Your task to perform on an android device: open app "Microsoft Authenticator" (install if not already installed) and go to login screen Image 0: 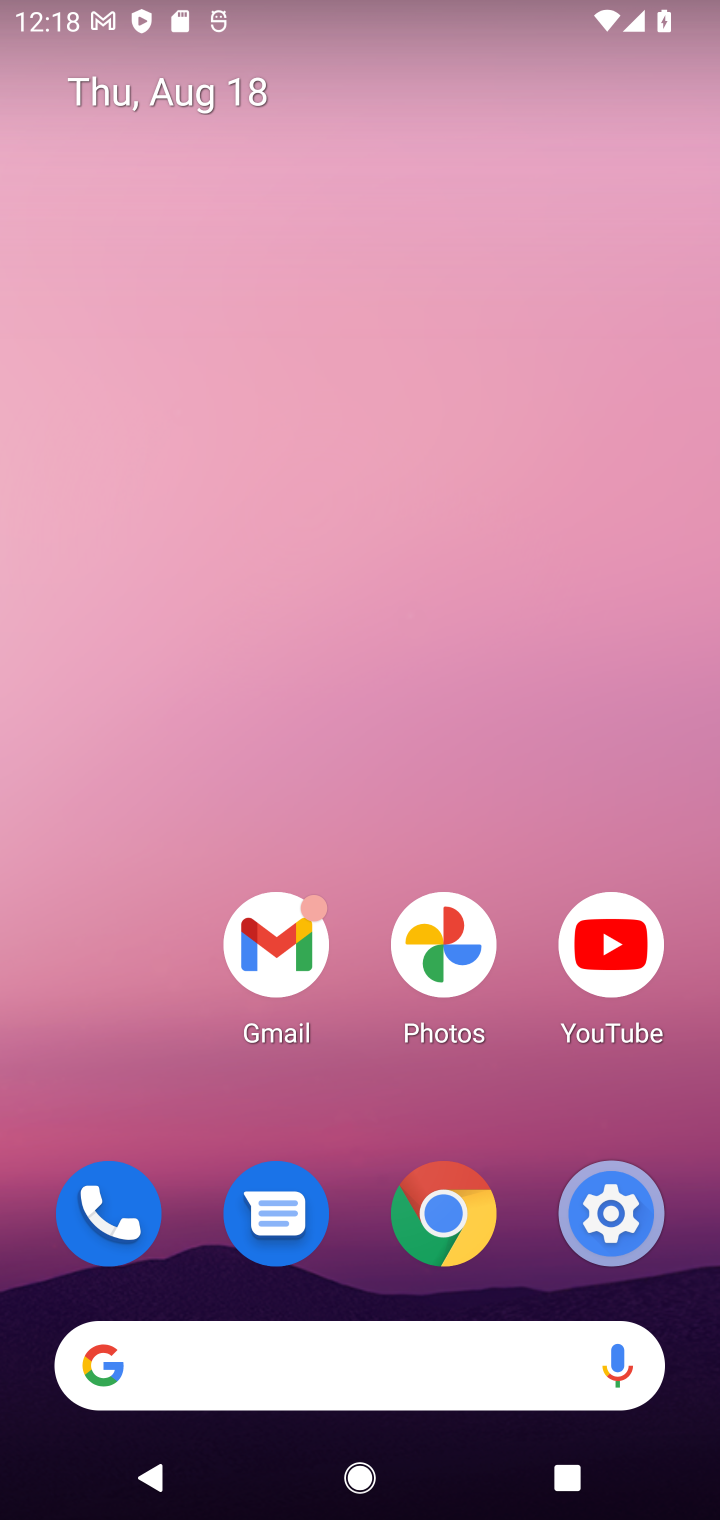
Step 0: drag from (268, 1378) to (286, 38)
Your task to perform on an android device: open app "Microsoft Authenticator" (install if not already installed) and go to login screen Image 1: 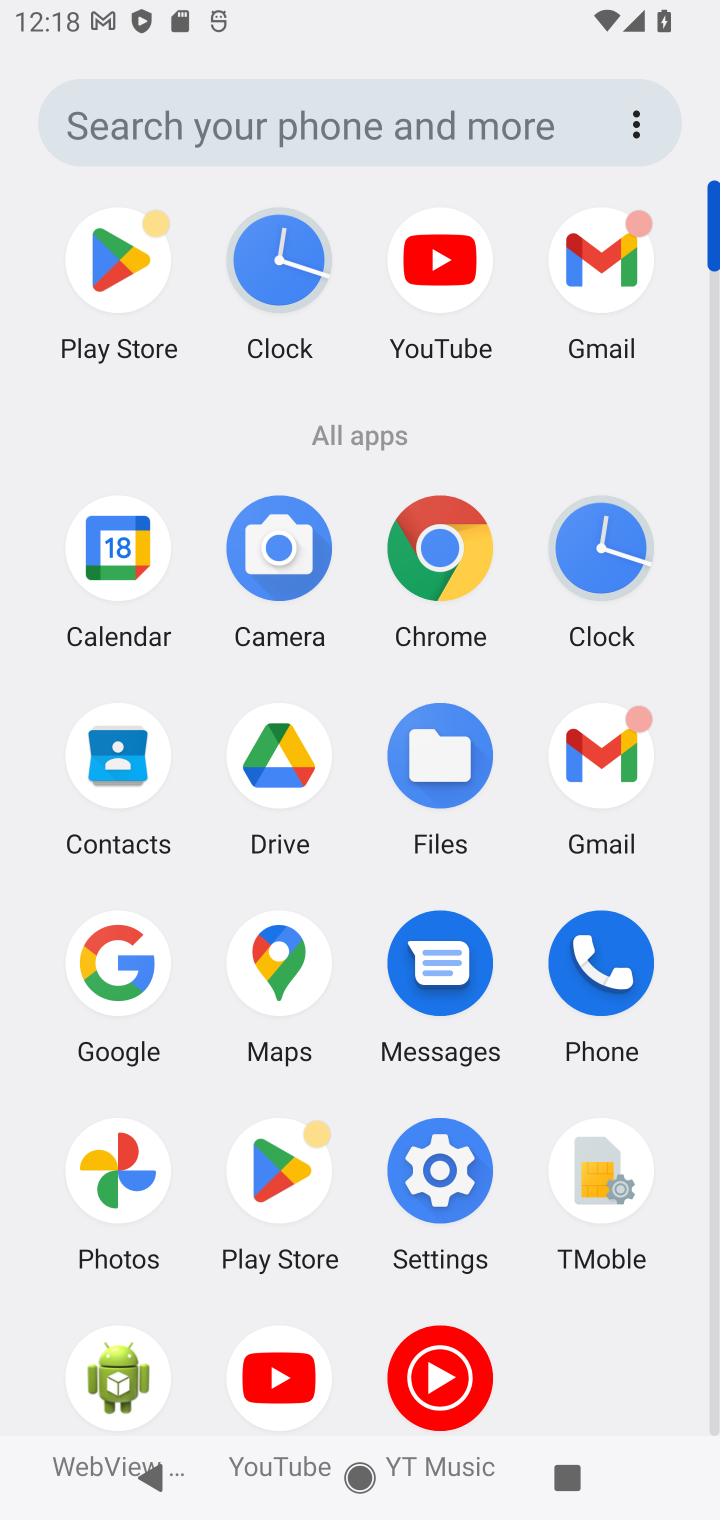
Step 1: click (141, 261)
Your task to perform on an android device: open app "Microsoft Authenticator" (install if not already installed) and go to login screen Image 2: 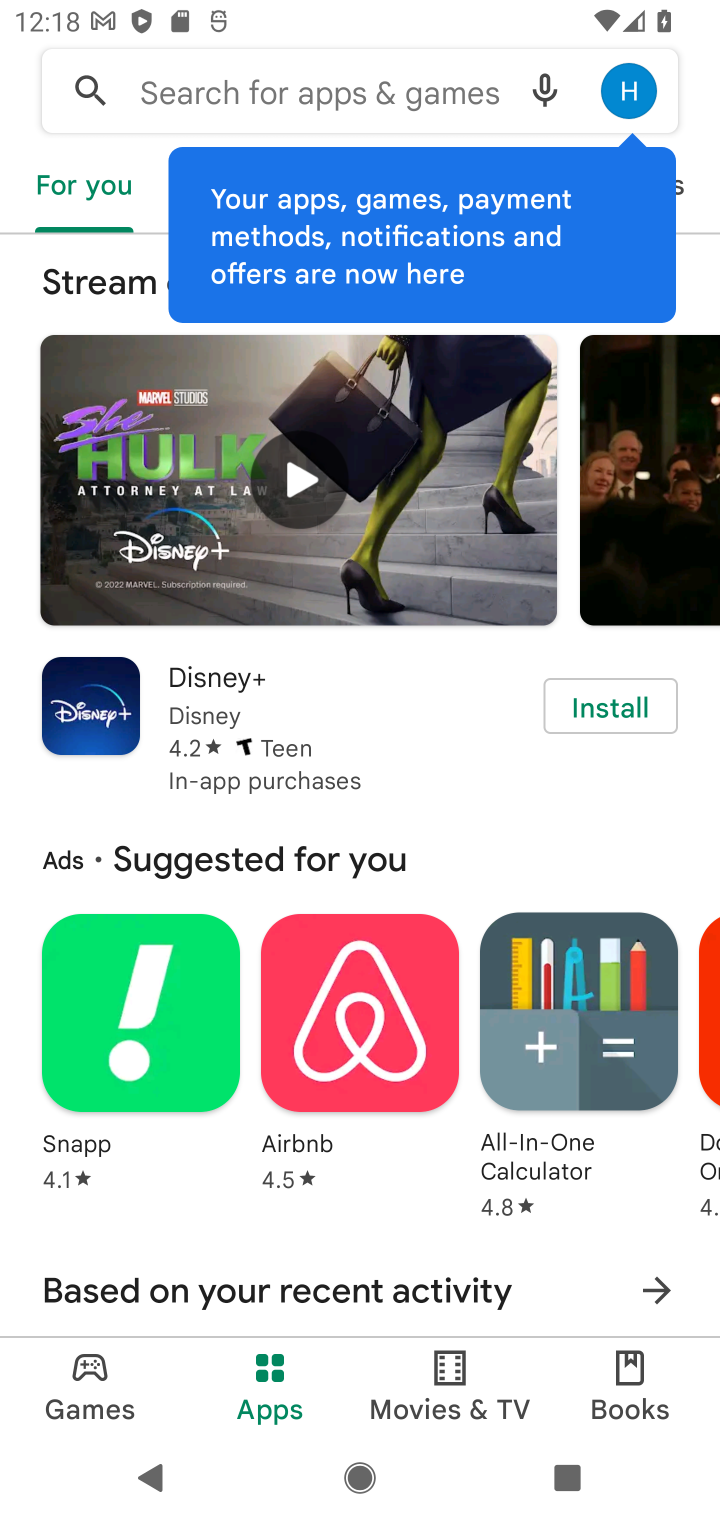
Step 2: click (413, 92)
Your task to perform on an android device: open app "Microsoft Authenticator" (install if not already installed) and go to login screen Image 3: 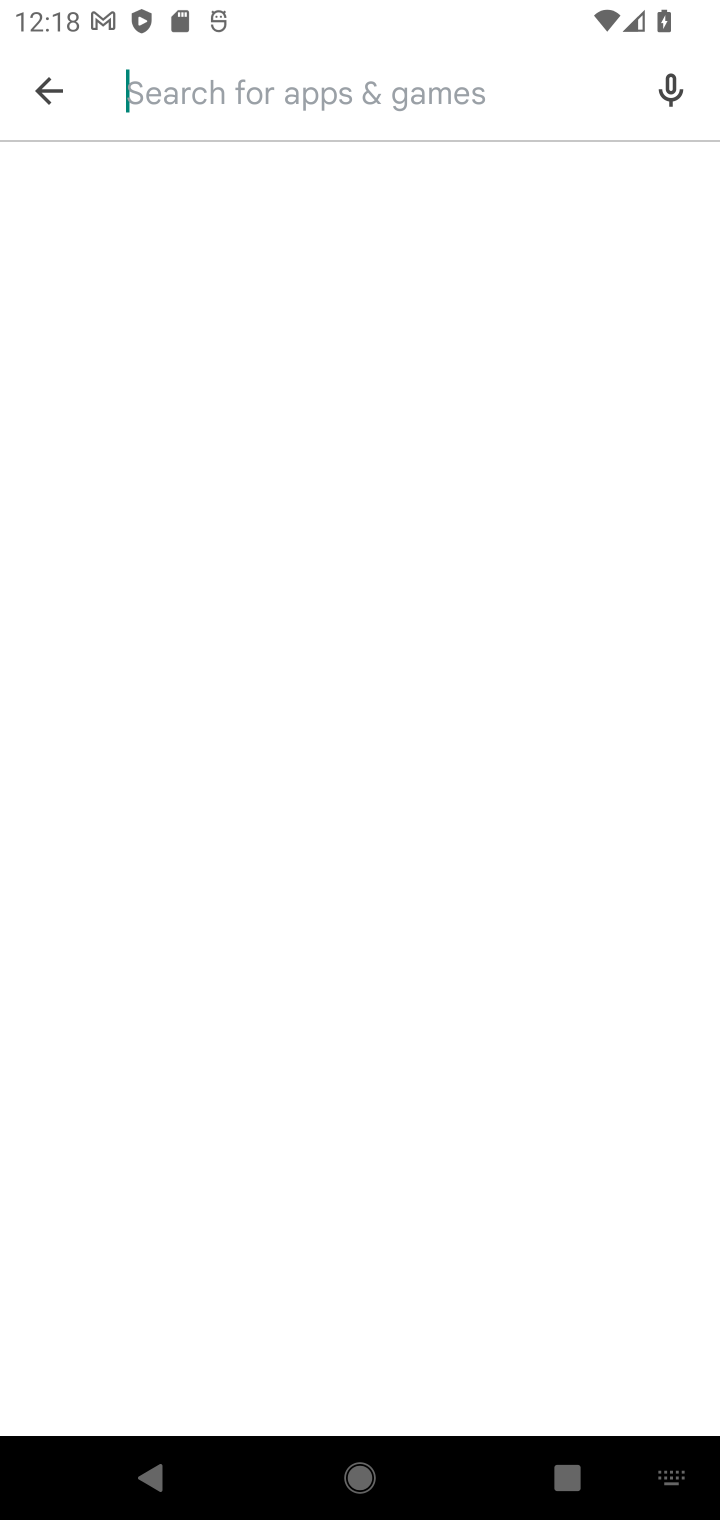
Step 3: type "Microsoft Authenticator"
Your task to perform on an android device: open app "Microsoft Authenticator" (install if not already installed) and go to login screen Image 4: 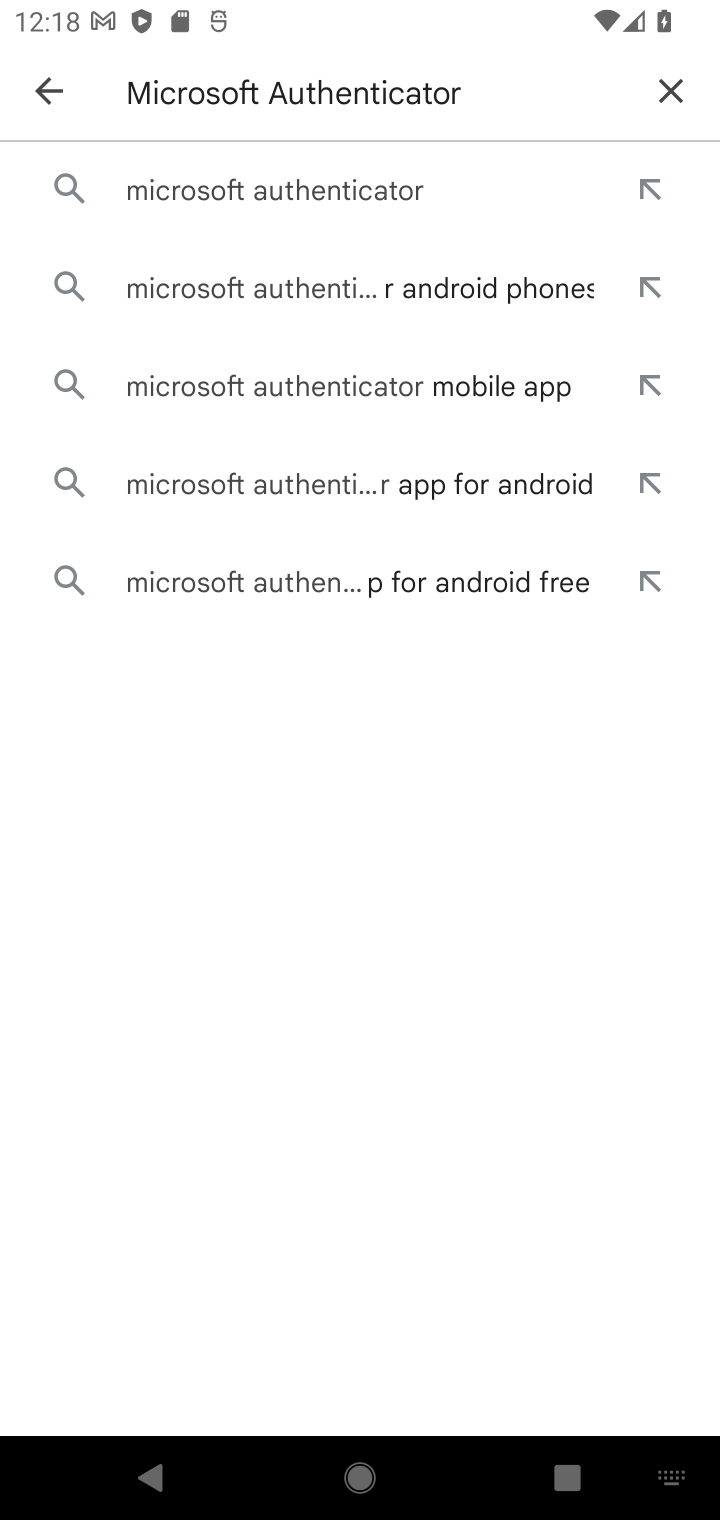
Step 4: click (281, 201)
Your task to perform on an android device: open app "Microsoft Authenticator" (install if not already installed) and go to login screen Image 5: 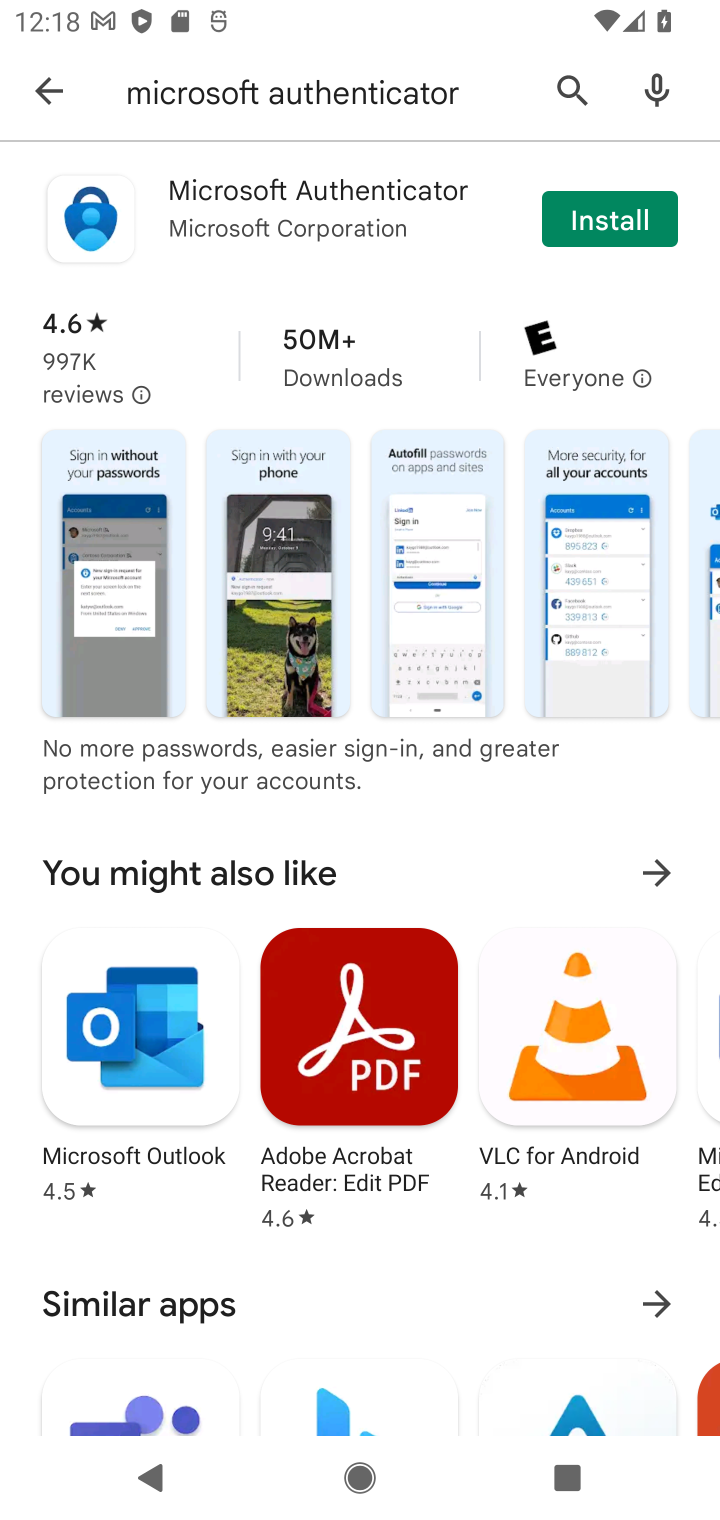
Step 5: click (620, 218)
Your task to perform on an android device: open app "Microsoft Authenticator" (install if not already installed) and go to login screen Image 6: 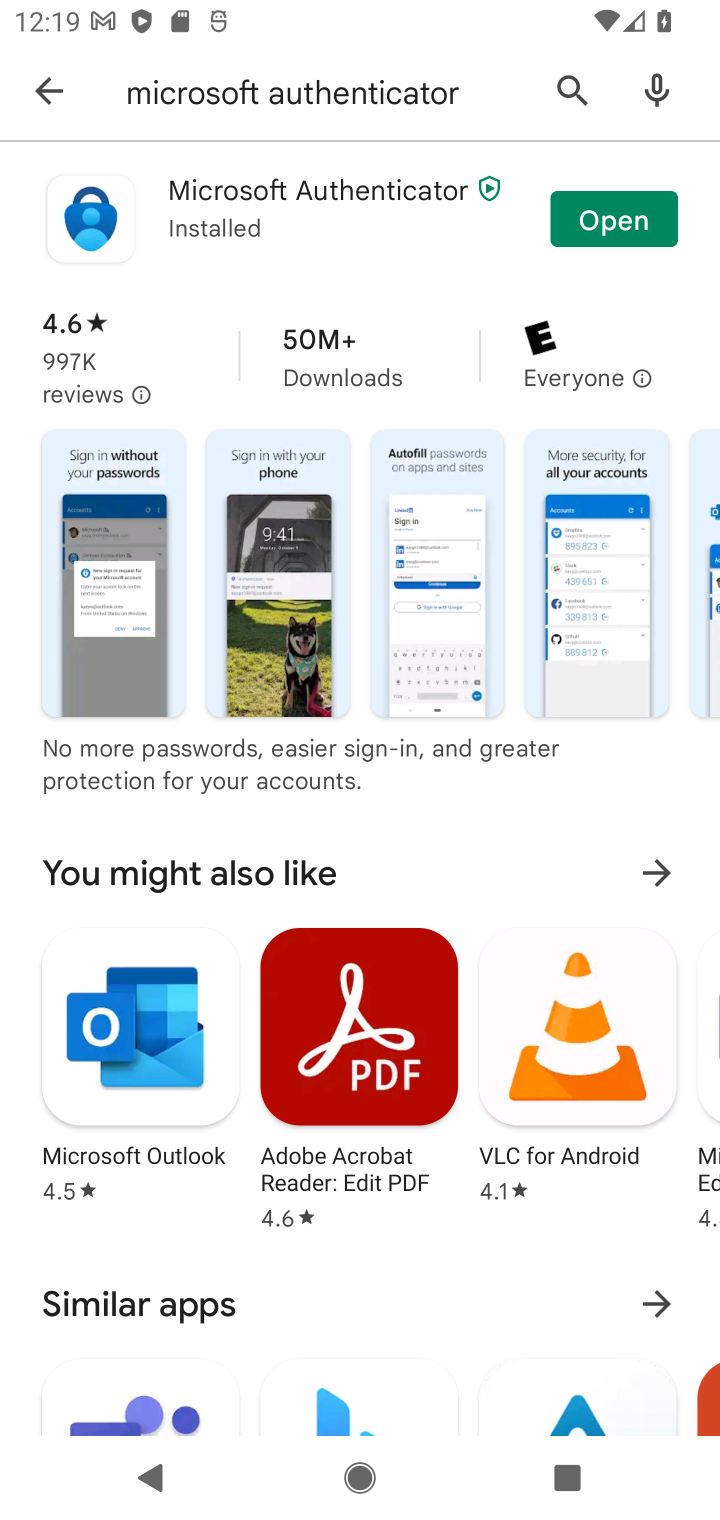
Step 6: click (626, 230)
Your task to perform on an android device: open app "Microsoft Authenticator" (install if not already installed) and go to login screen Image 7: 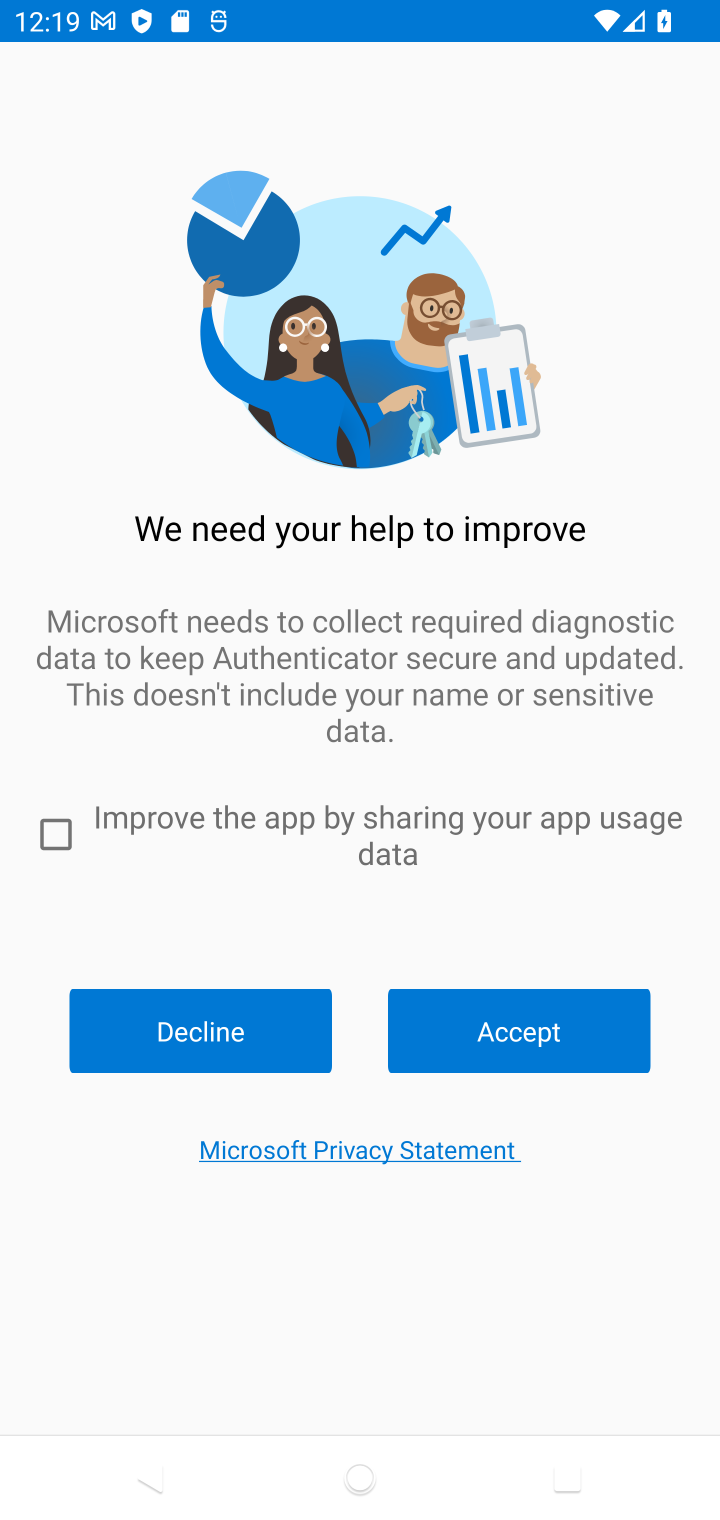
Step 7: click (57, 813)
Your task to perform on an android device: open app "Microsoft Authenticator" (install if not already installed) and go to login screen Image 8: 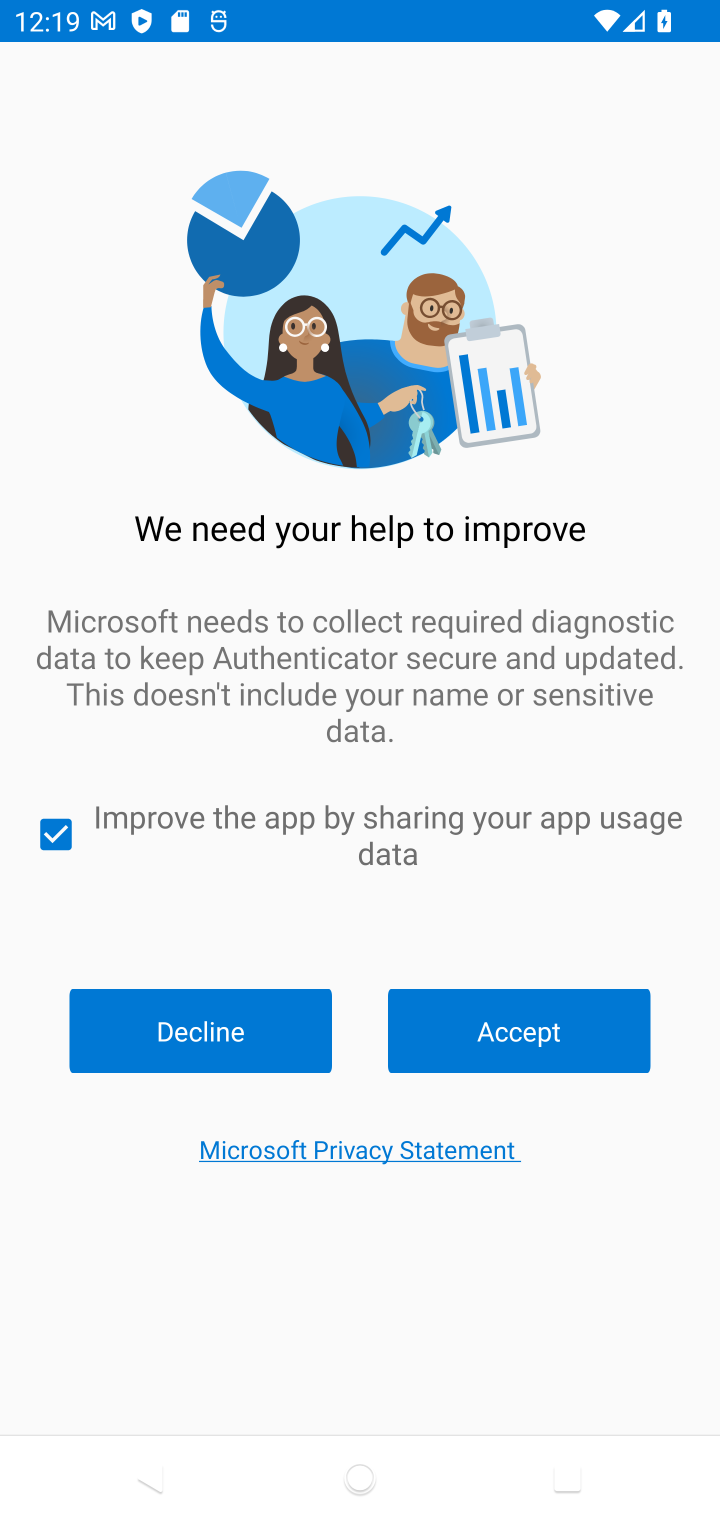
Step 8: click (454, 1037)
Your task to perform on an android device: open app "Microsoft Authenticator" (install if not already installed) and go to login screen Image 9: 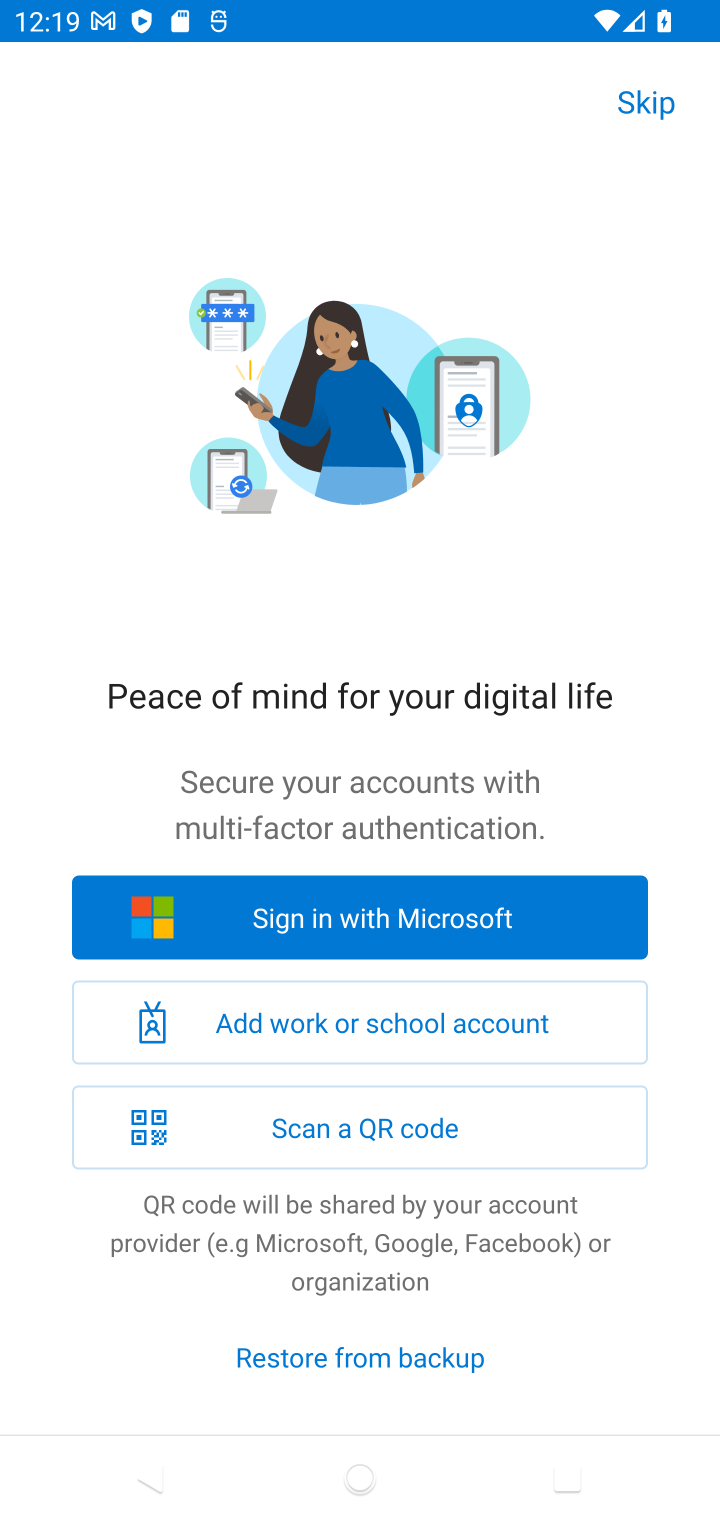
Step 9: click (461, 910)
Your task to perform on an android device: open app "Microsoft Authenticator" (install if not already installed) and go to login screen Image 10: 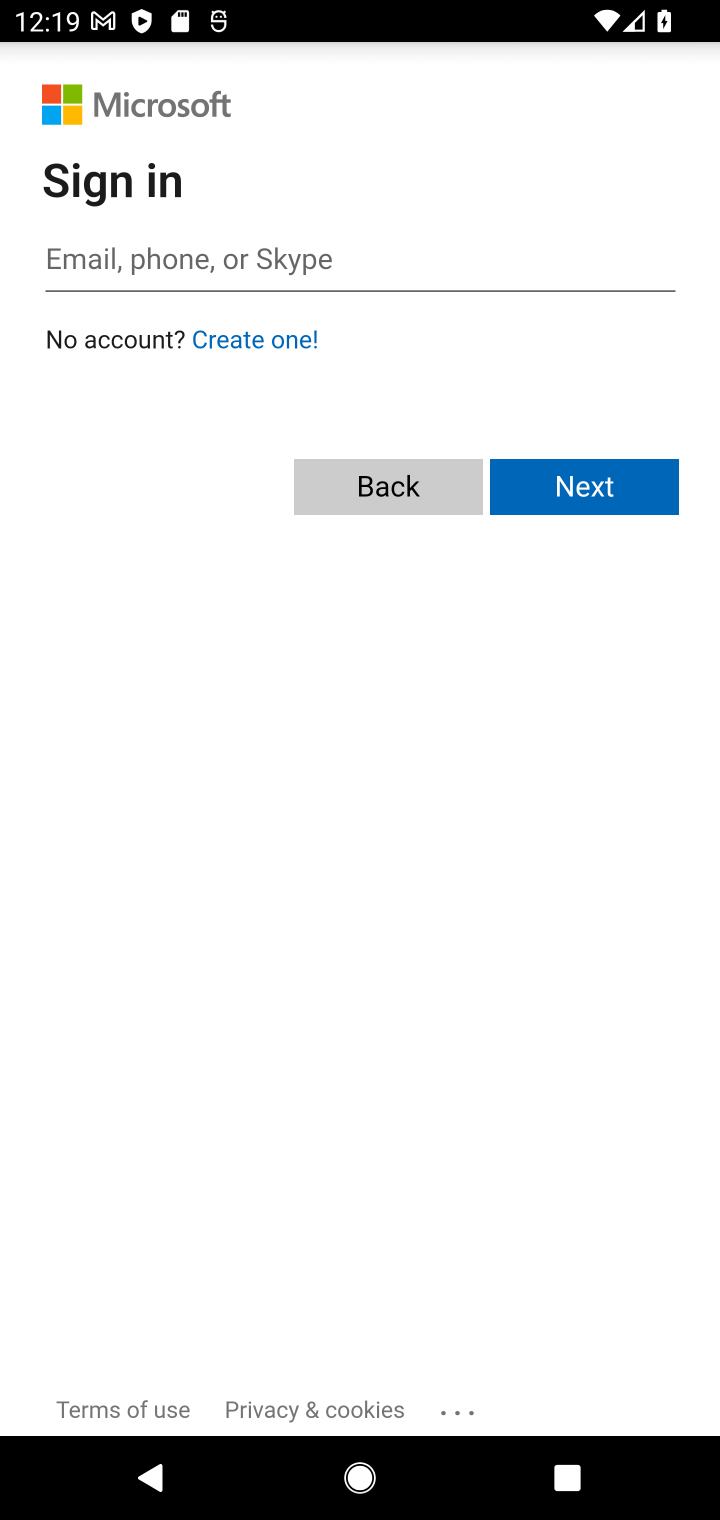
Step 10: task complete